Your task to perform on an android device: Open calendar and show me the fourth week of next month Image 0: 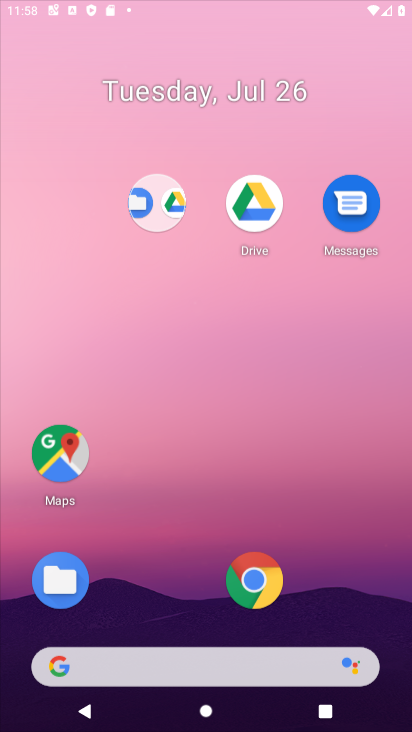
Step 0: drag from (160, 561) to (106, 177)
Your task to perform on an android device: Open calendar and show me the fourth week of next month Image 1: 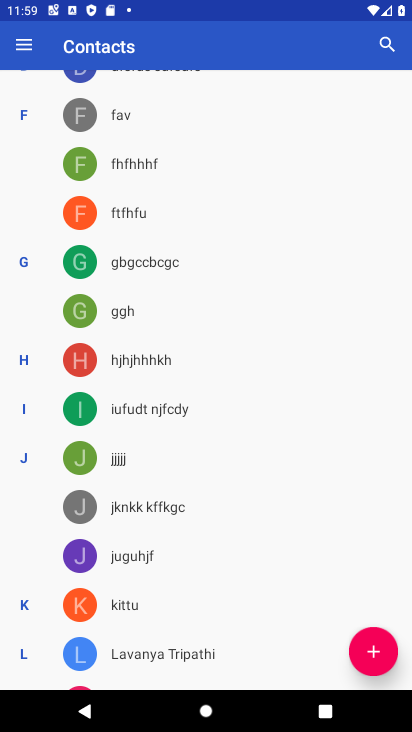
Step 1: press home button
Your task to perform on an android device: Open calendar and show me the fourth week of next month Image 2: 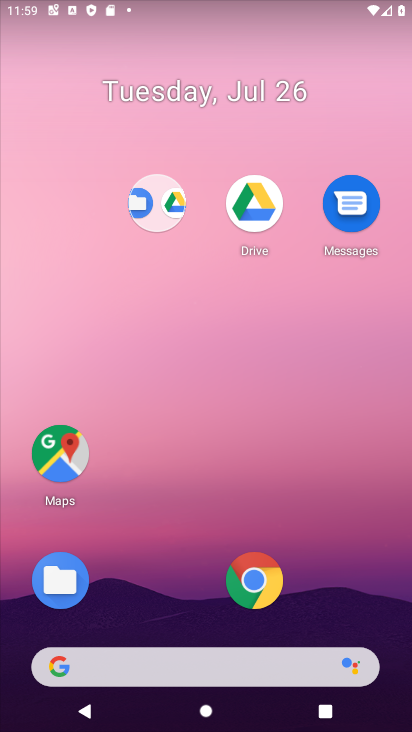
Step 2: click (206, 91)
Your task to perform on an android device: Open calendar and show me the fourth week of next month Image 3: 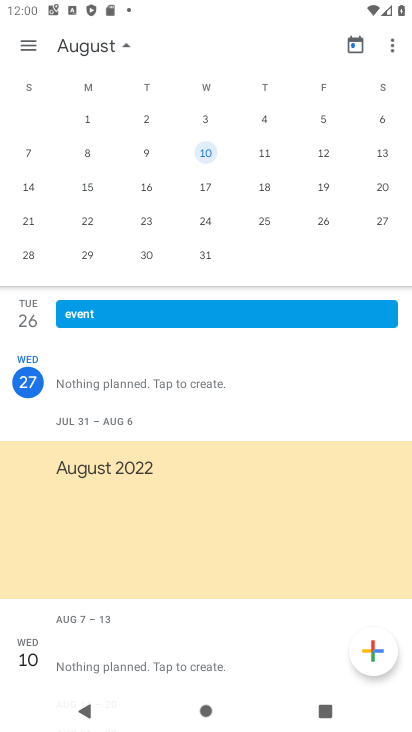
Step 3: click (257, 120)
Your task to perform on an android device: Open calendar and show me the fourth week of next month Image 4: 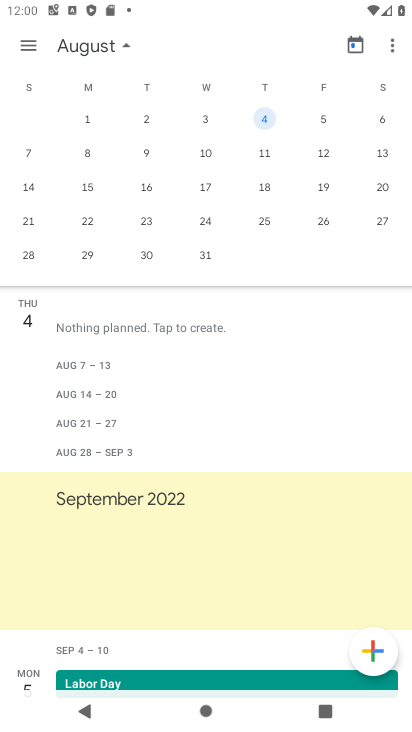
Step 4: task complete